Your task to perform on an android device: find which apps use the phone's location Image 0: 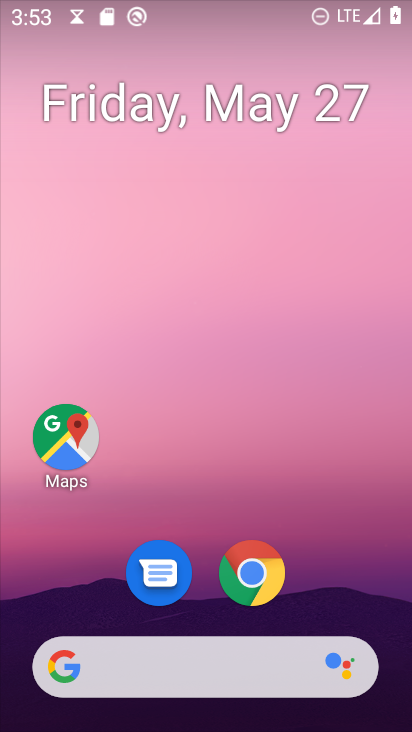
Step 0: drag from (304, 606) to (299, 86)
Your task to perform on an android device: find which apps use the phone's location Image 1: 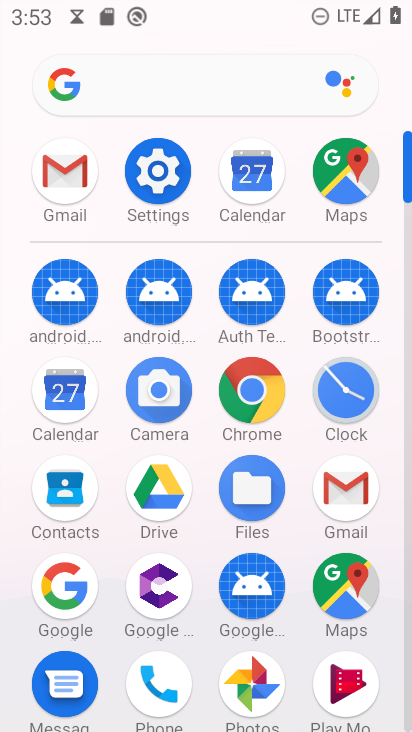
Step 1: click (149, 173)
Your task to perform on an android device: find which apps use the phone's location Image 2: 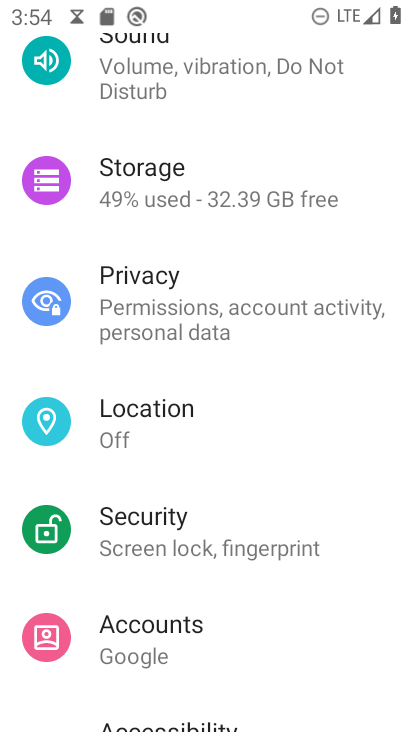
Step 2: drag from (192, 191) to (218, 602)
Your task to perform on an android device: find which apps use the phone's location Image 3: 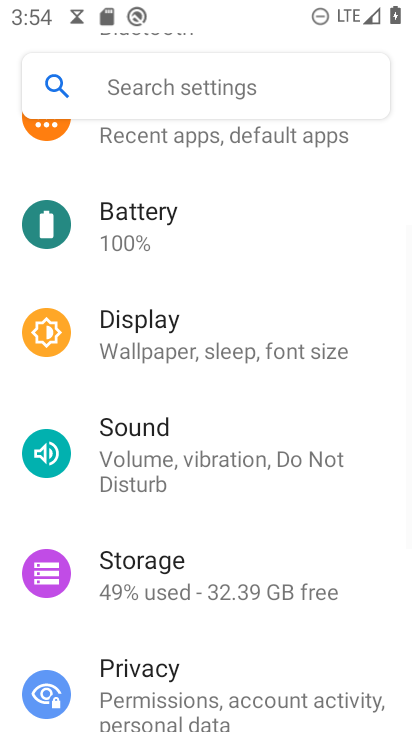
Step 3: drag from (214, 597) to (208, 430)
Your task to perform on an android device: find which apps use the phone's location Image 4: 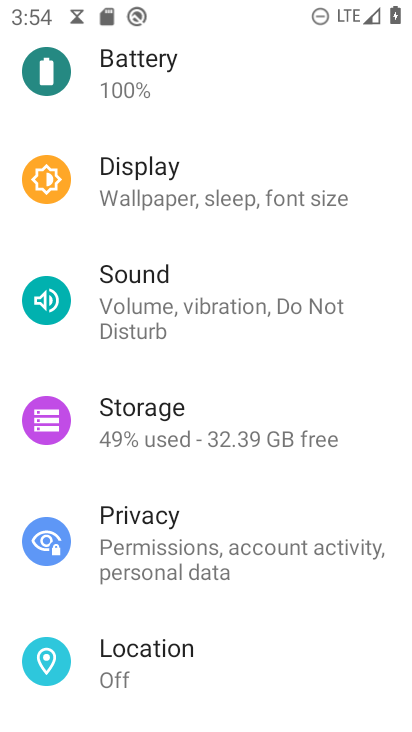
Step 4: click (147, 652)
Your task to perform on an android device: find which apps use the phone's location Image 5: 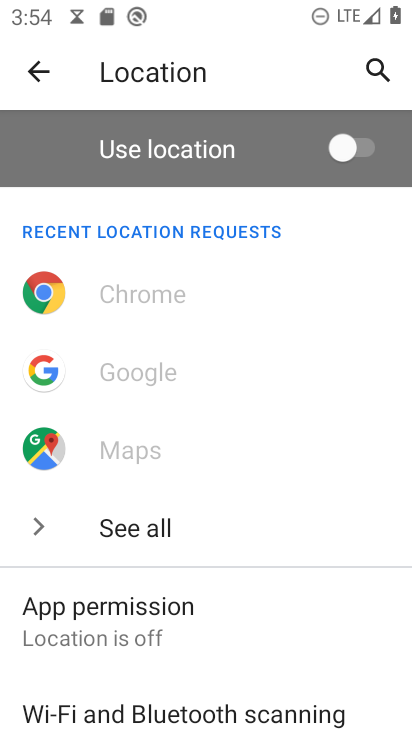
Step 5: click (137, 603)
Your task to perform on an android device: find which apps use the phone's location Image 6: 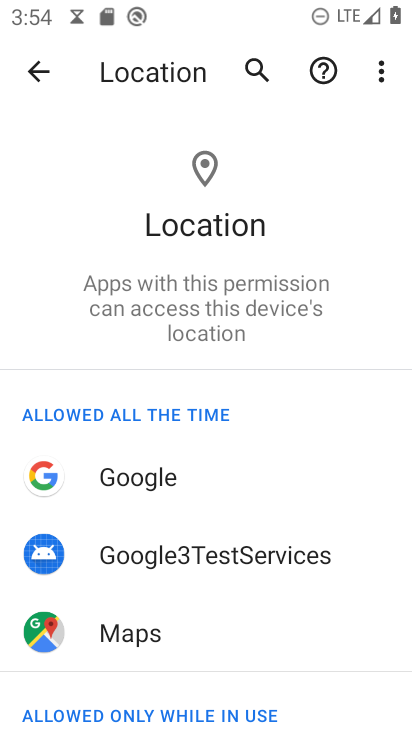
Step 6: task complete